Your task to perform on an android device: turn pop-ups on in chrome Image 0: 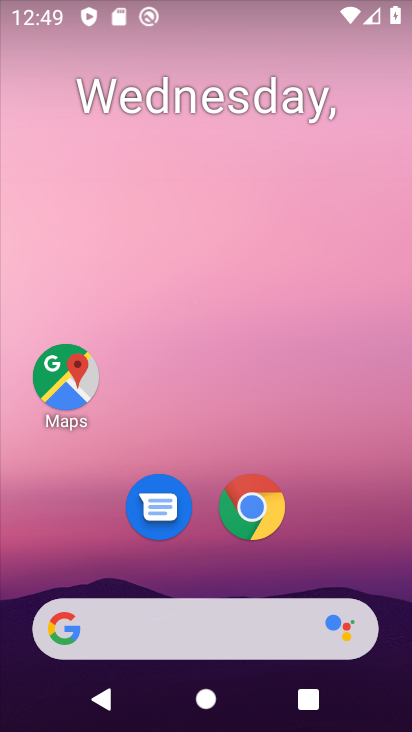
Step 0: press home button
Your task to perform on an android device: turn pop-ups on in chrome Image 1: 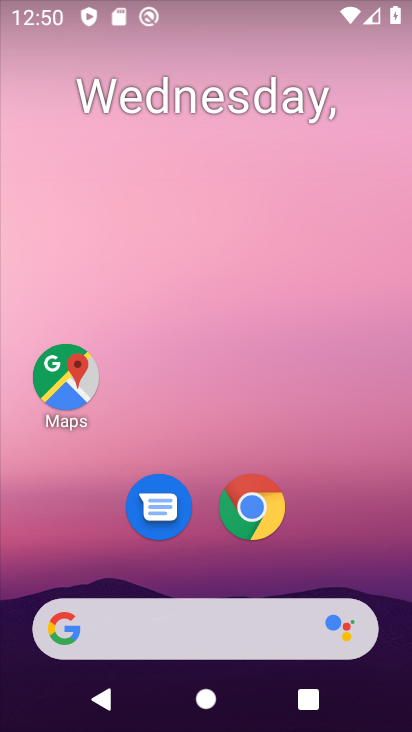
Step 1: drag from (176, 636) to (278, 232)
Your task to perform on an android device: turn pop-ups on in chrome Image 2: 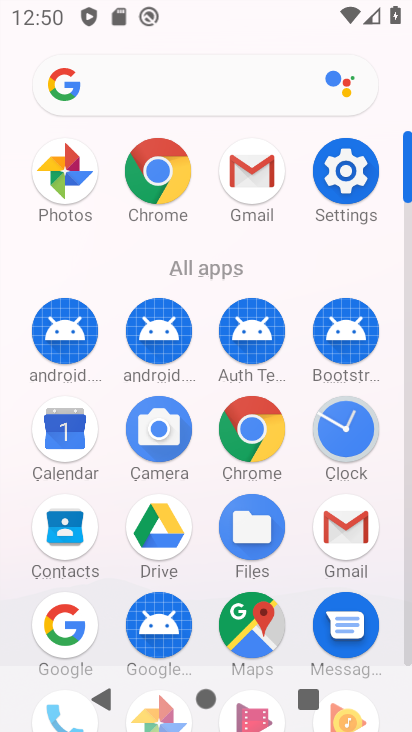
Step 2: click (151, 167)
Your task to perform on an android device: turn pop-ups on in chrome Image 3: 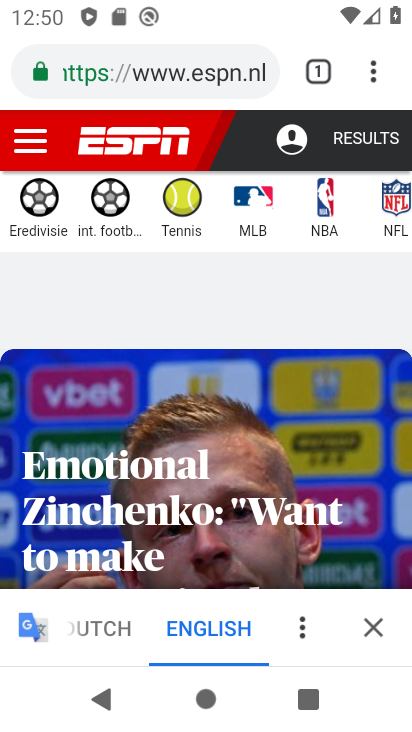
Step 3: drag from (369, 77) to (176, 508)
Your task to perform on an android device: turn pop-ups on in chrome Image 4: 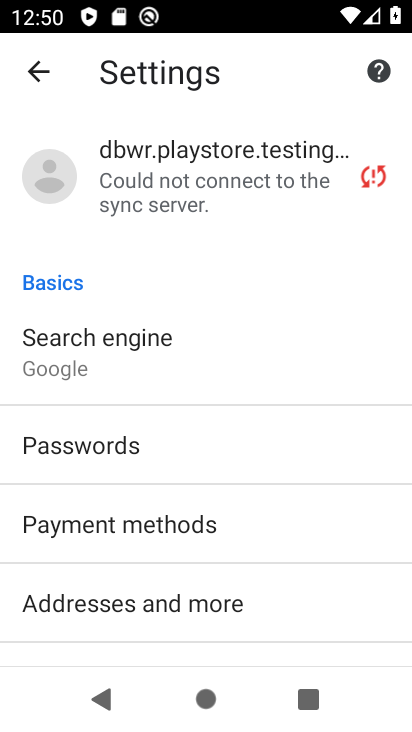
Step 4: drag from (217, 598) to (258, 141)
Your task to perform on an android device: turn pop-ups on in chrome Image 5: 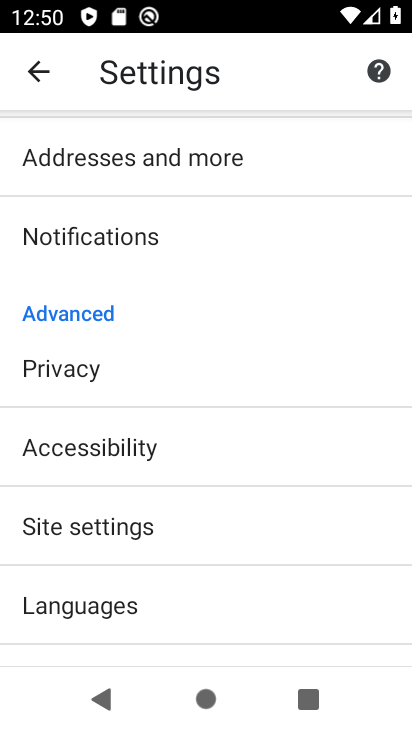
Step 5: click (147, 533)
Your task to perform on an android device: turn pop-ups on in chrome Image 6: 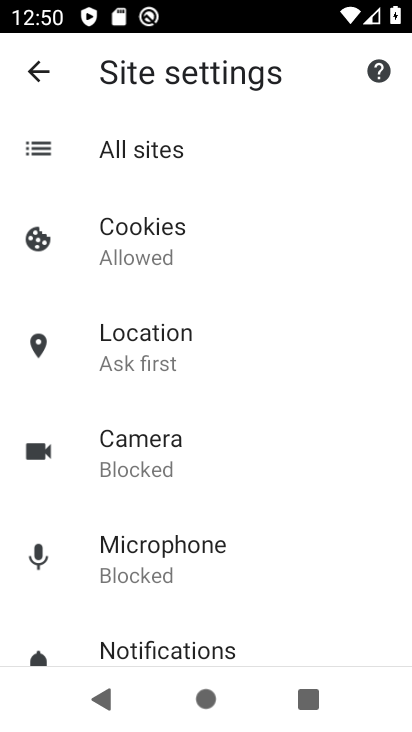
Step 6: drag from (175, 617) to (217, 128)
Your task to perform on an android device: turn pop-ups on in chrome Image 7: 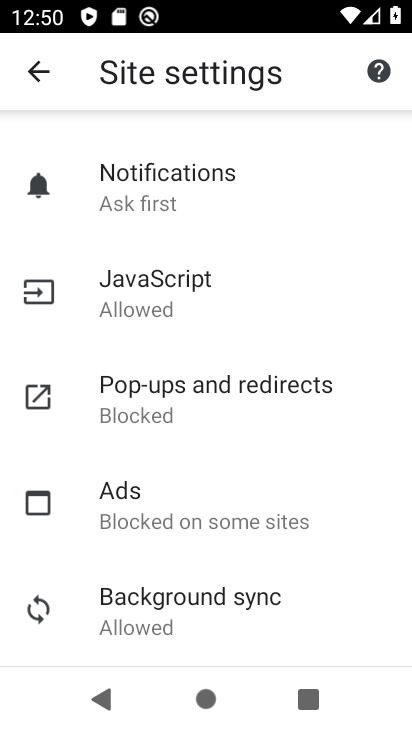
Step 7: click (195, 405)
Your task to perform on an android device: turn pop-ups on in chrome Image 8: 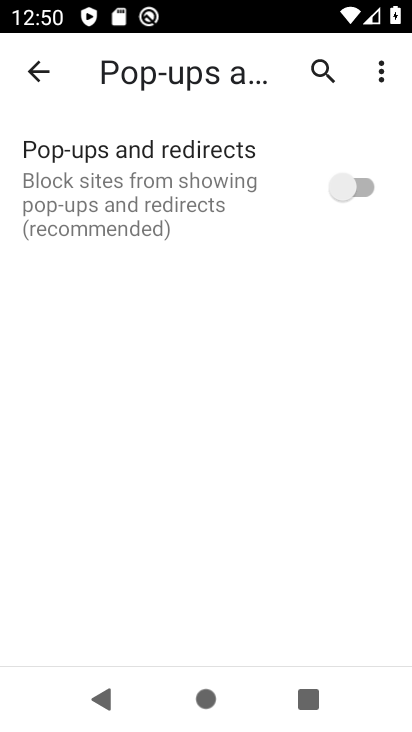
Step 8: click (354, 188)
Your task to perform on an android device: turn pop-ups on in chrome Image 9: 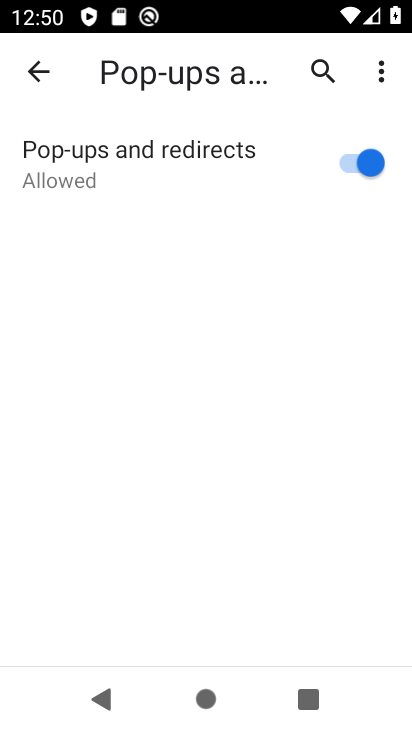
Step 9: task complete